Your task to perform on an android device: Open the phone app and click the voicemail tab. Image 0: 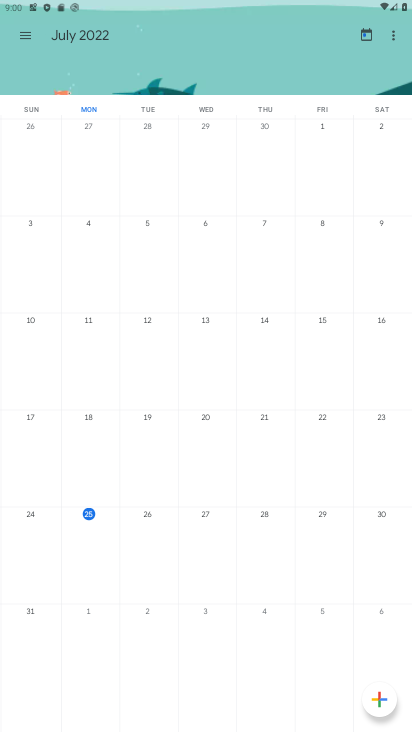
Step 0: press home button
Your task to perform on an android device: Open the phone app and click the voicemail tab. Image 1: 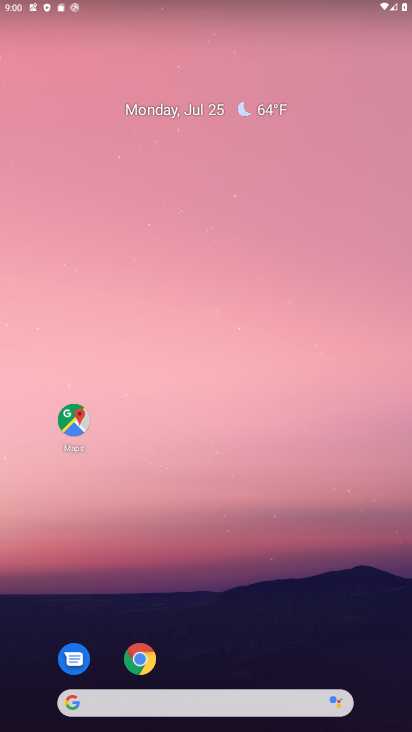
Step 1: drag from (374, 625) to (400, 149)
Your task to perform on an android device: Open the phone app and click the voicemail tab. Image 2: 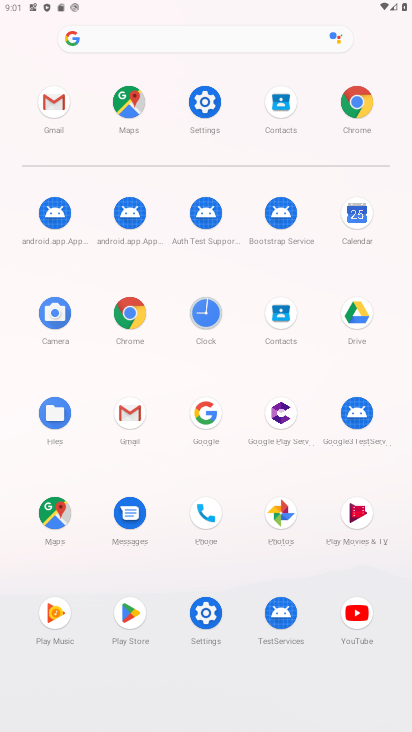
Step 2: click (205, 515)
Your task to perform on an android device: Open the phone app and click the voicemail tab. Image 3: 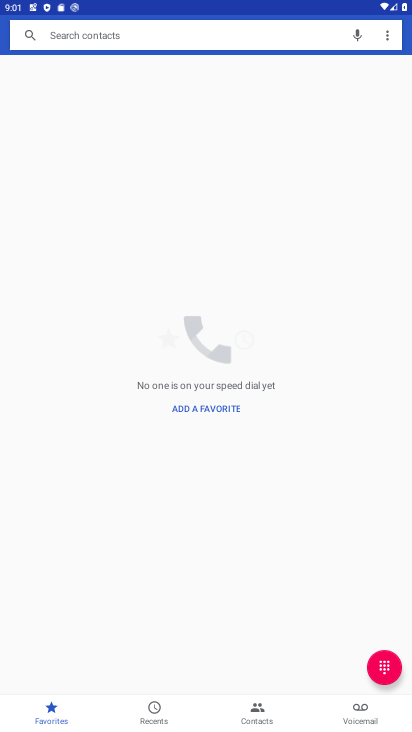
Step 3: click (360, 711)
Your task to perform on an android device: Open the phone app and click the voicemail tab. Image 4: 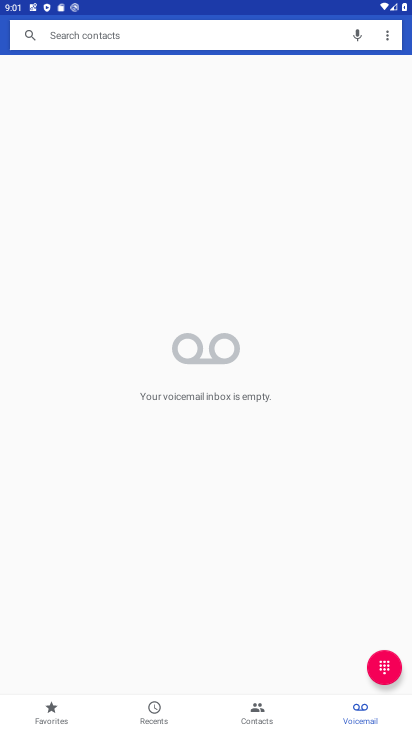
Step 4: task complete